Your task to perform on an android device: What's the weather? Image 0: 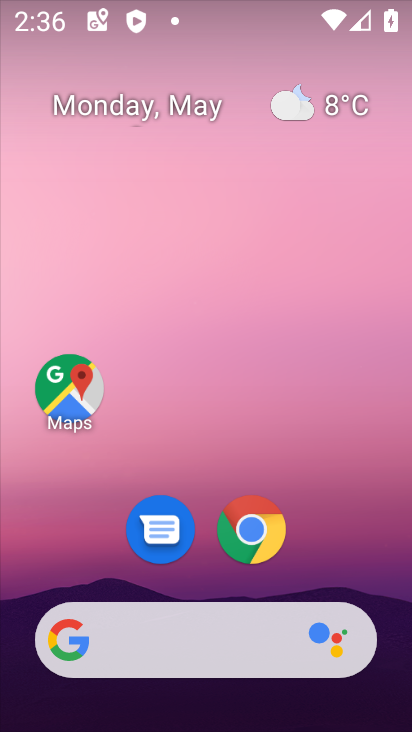
Step 0: click (346, 113)
Your task to perform on an android device: What's the weather? Image 1: 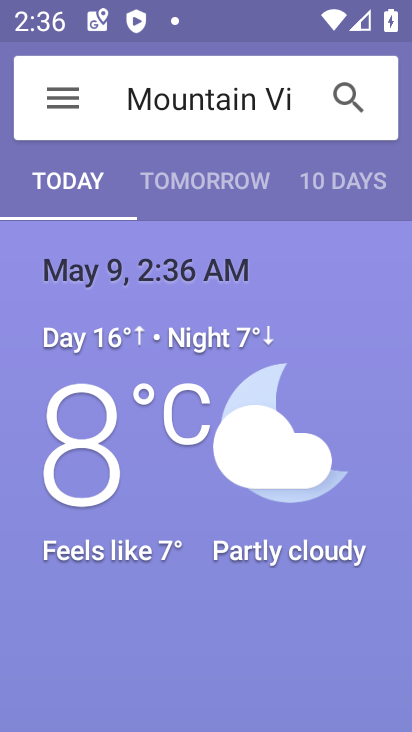
Step 1: task complete